Your task to perform on an android device: open a bookmark in the chrome app Image 0: 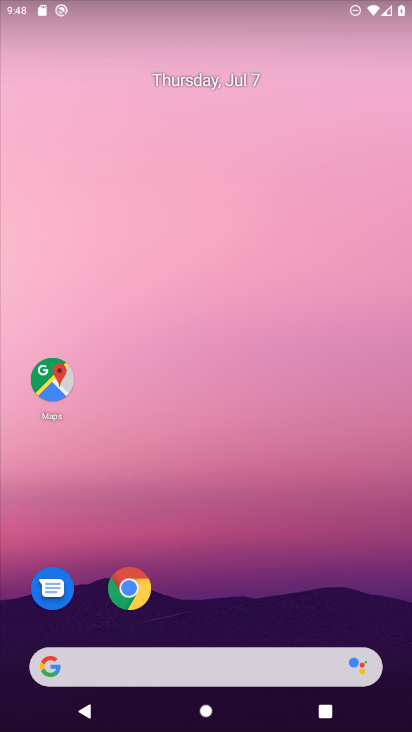
Step 0: click (145, 582)
Your task to perform on an android device: open a bookmark in the chrome app Image 1: 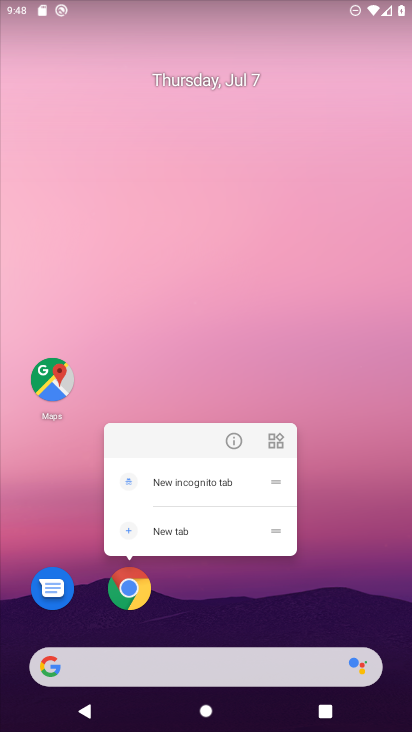
Step 1: click (176, 539)
Your task to perform on an android device: open a bookmark in the chrome app Image 2: 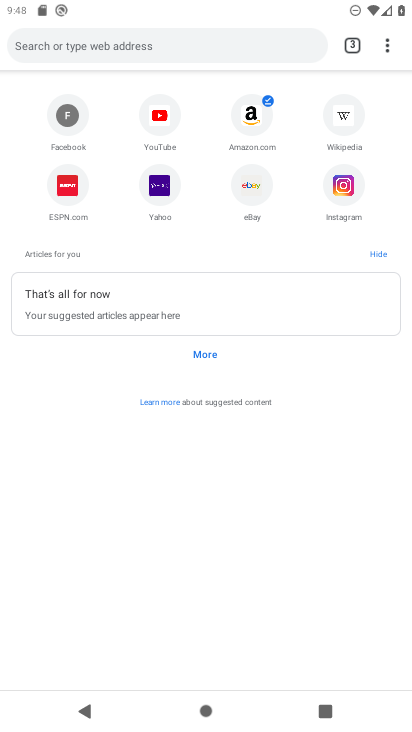
Step 2: click (392, 40)
Your task to perform on an android device: open a bookmark in the chrome app Image 3: 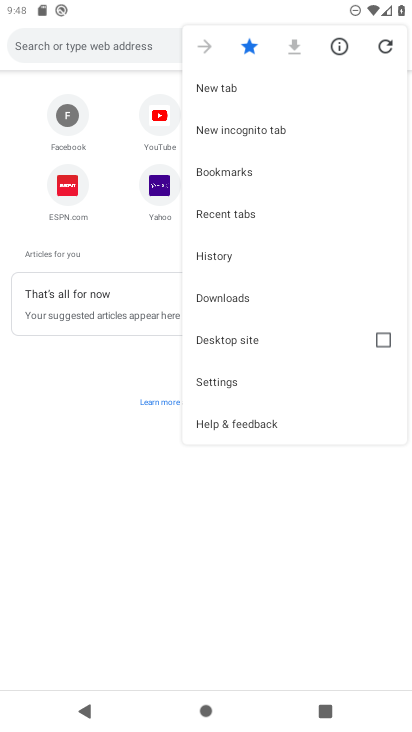
Step 3: click (231, 182)
Your task to perform on an android device: open a bookmark in the chrome app Image 4: 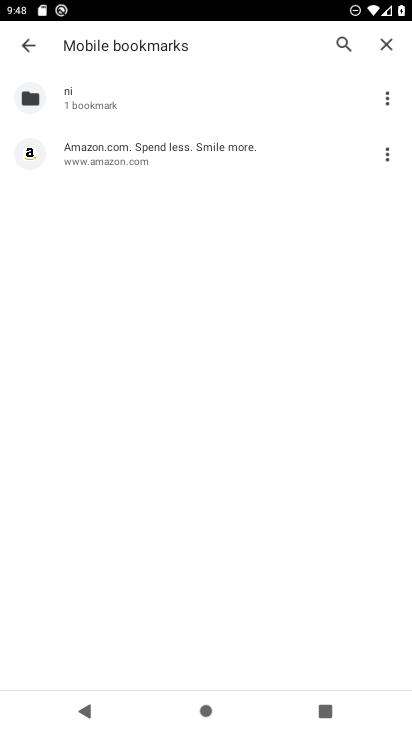
Step 4: click (252, 158)
Your task to perform on an android device: open a bookmark in the chrome app Image 5: 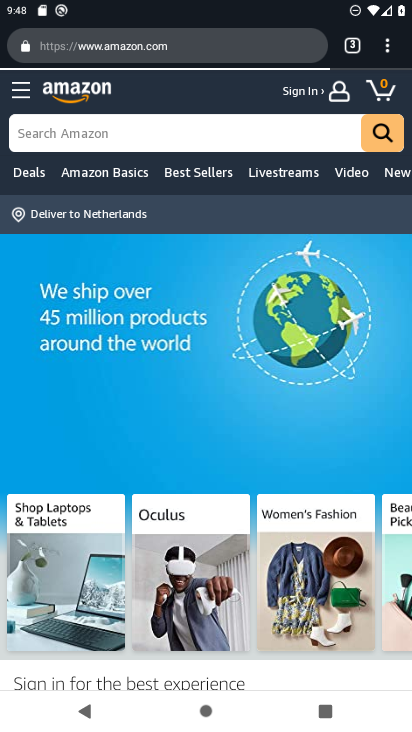
Step 5: task complete